Your task to perform on an android device: open app "McDonald's" (install if not already installed) Image 0: 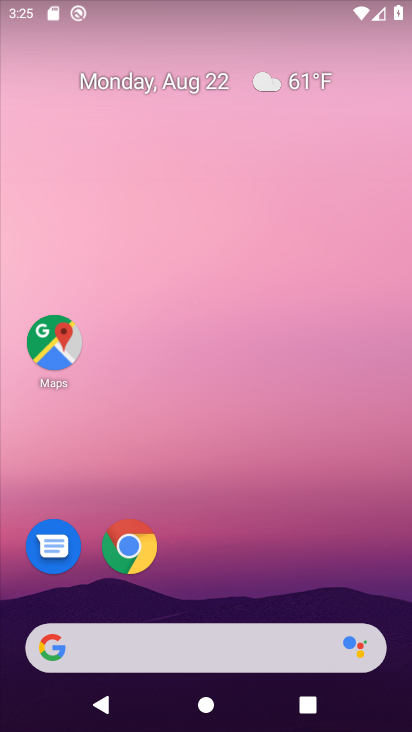
Step 0: drag from (384, 609) to (363, 144)
Your task to perform on an android device: open app "McDonald's" (install if not already installed) Image 1: 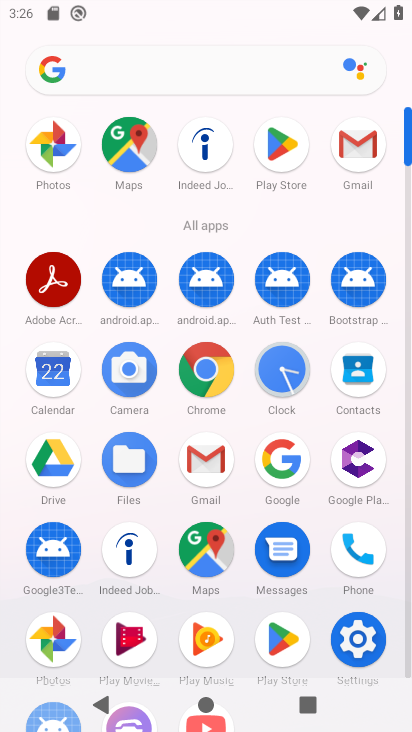
Step 1: click (283, 641)
Your task to perform on an android device: open app "McDonald's" (install if not already installed) Image 2: 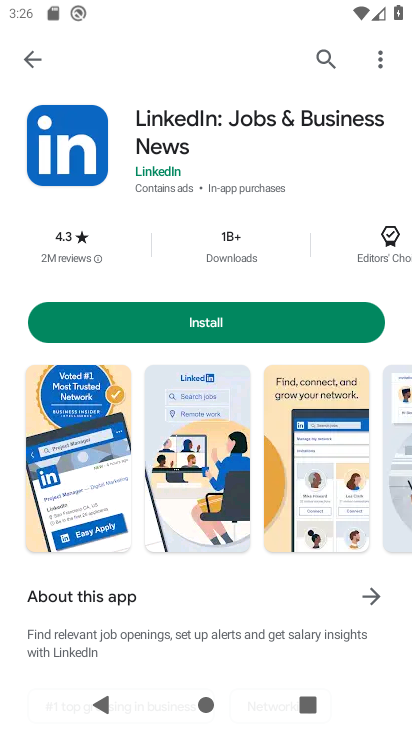
Step 2: click (321, 54)
Your task to perform on an android device: open app "McDonald's" (install if not already installed) Image 3: 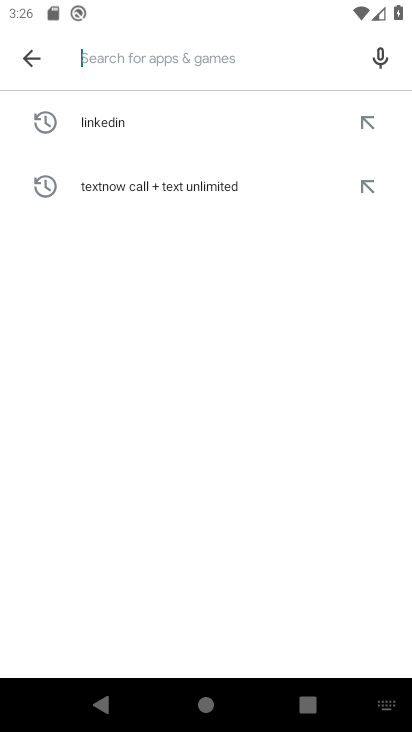
Step 3: type "McDonald's"
Your task to perform on an android device: open app "McDonald's" (install if not already installed) Image 4: 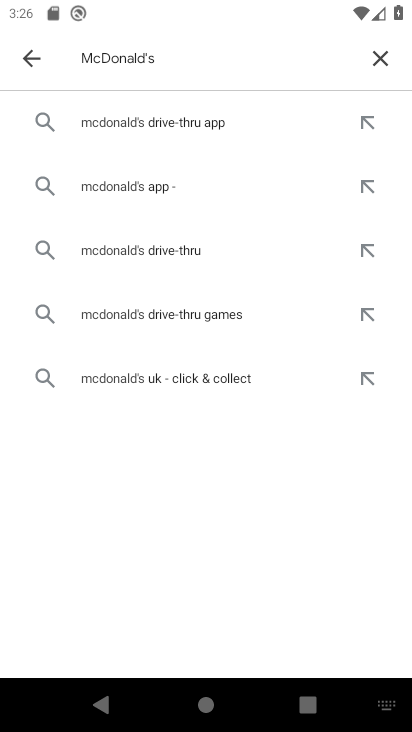
Step 4: click (108, 180)
Your task to perform on an android device: open app "McDonald's" (install if not already installed) Image 5: 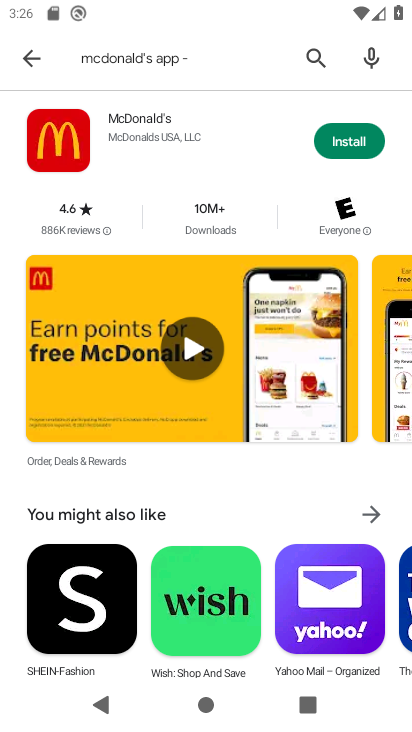
Step 5: click (114, 129)
Your task to perform on an android device: open app "McDonald's" (install if not already installed) Image 6: 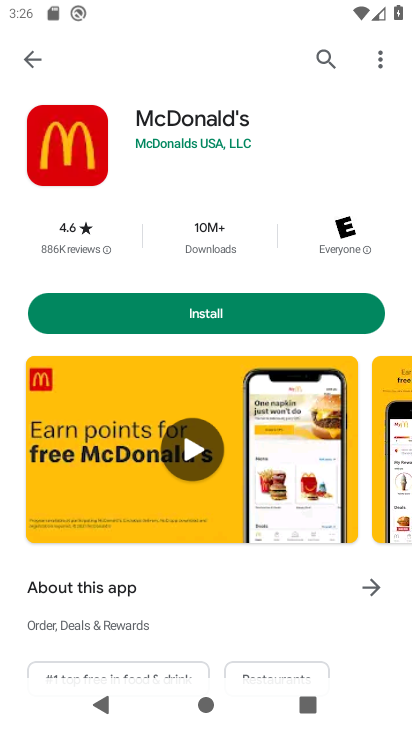
Step 6: click (201, 311)
Your task to perform on an android device: open app "McDonald's" (install if not already installed) Image 7: 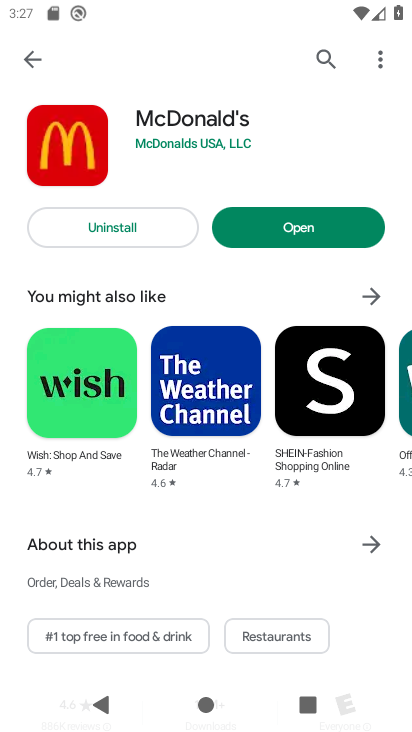
Step 7: click (298, 227)
Your task to perform on an android device: open app "McDonald's" (install if not already installed) Image 8: 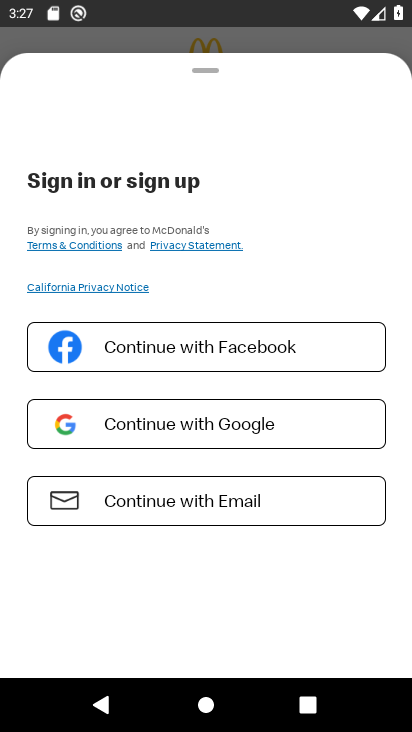
Step 8: task complete